Your task to perform on an android device: turn smart compose on in the gmail app Image 0: 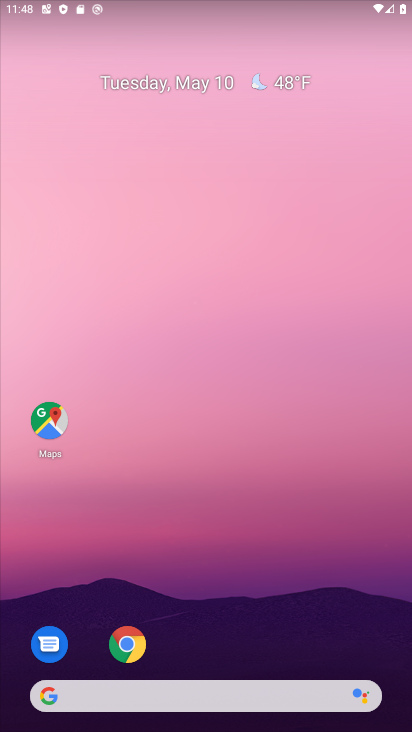
Step 0: drag from (231, 640) to (247, 170)
Your task to perform on an android device: turn smart compose on in the gmail app Image 1: 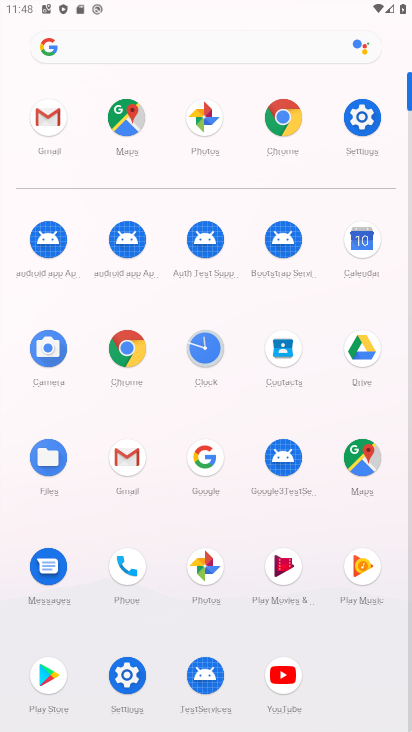
Step 1: click (152, 471)
Your task to perform on an android device: turn smart compose on in the gmail app Image 2: 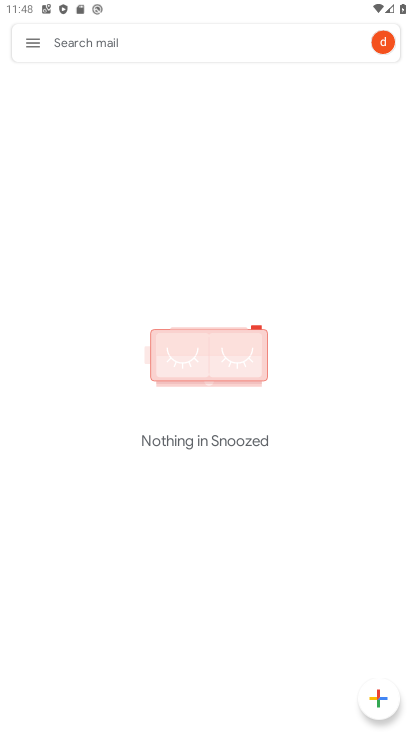
Step 2: click (39, 39)
Your task to perform on an android device: turn smart compose on in the gmail app Image 3: 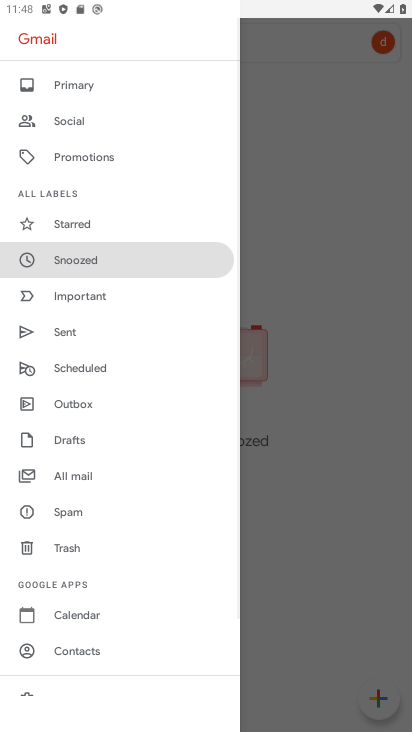
Step 3: drag from (64, 636) to (107, 386)
Your task to perform on an android device: turn smart compose on in the gmail app Image 4: 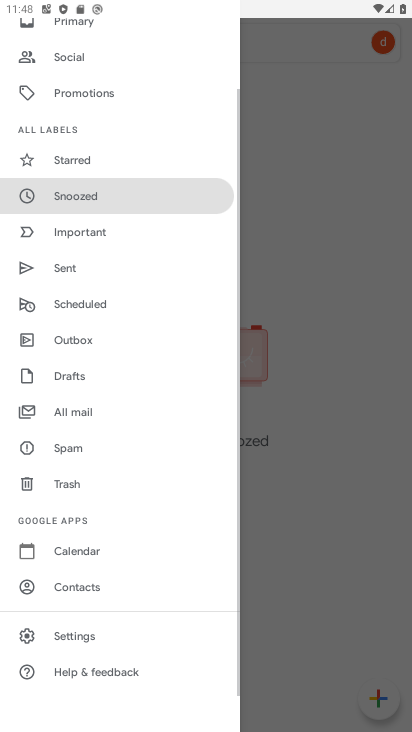
Step 4: click (80, 643)
Your task to perform on an android device: turn smart compose on in the gmail app Image 5: 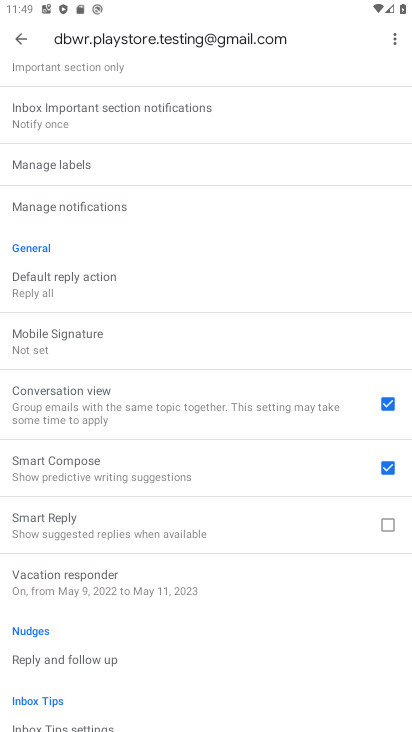
Step 5: task complete